Your task to perform on an android device: see creations saved in the google photos Image 0: 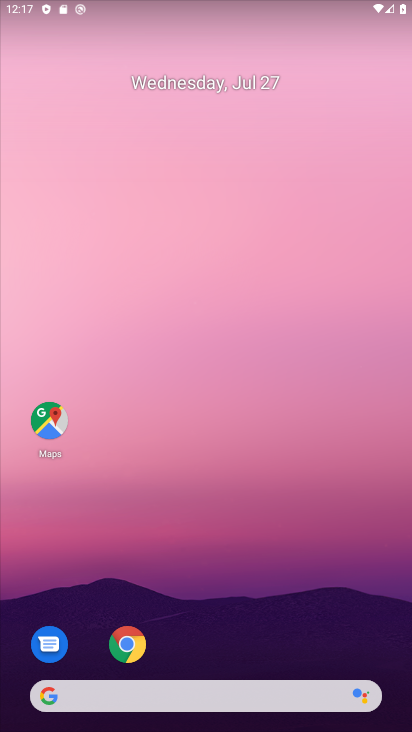
Step 0: drag from (195, 650) to (236, 172)
Your task to perform on an android device: see creations saved in the google photos Image 1: 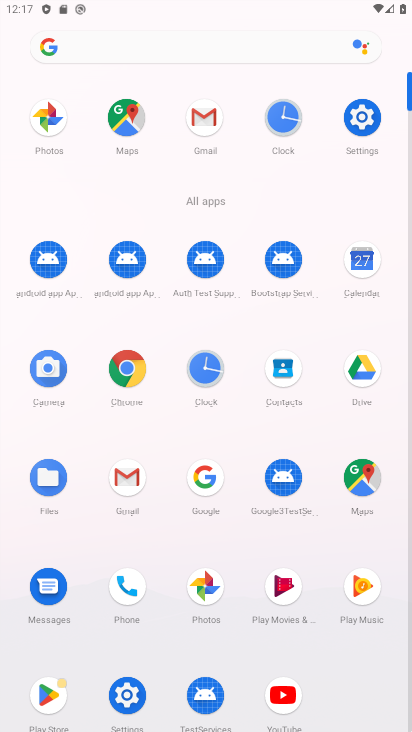
Step 1: click (200, 597)
Your task to perform on an android device: see creations saved in the google photos Image 2: 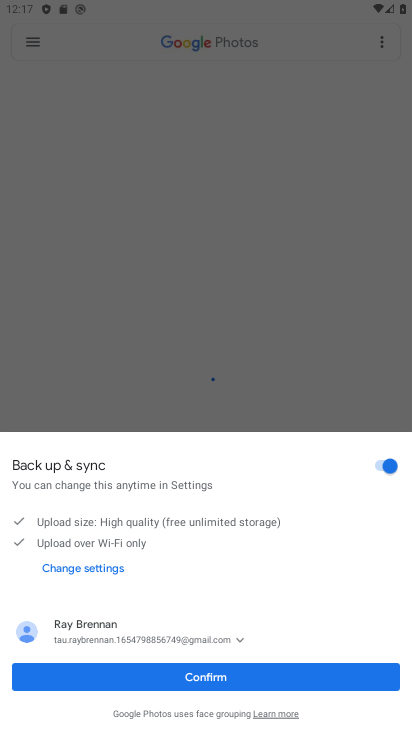
Step 2: click (203, 674)
Your task to perform on an android device: see creations saved in the google photos Image 3: 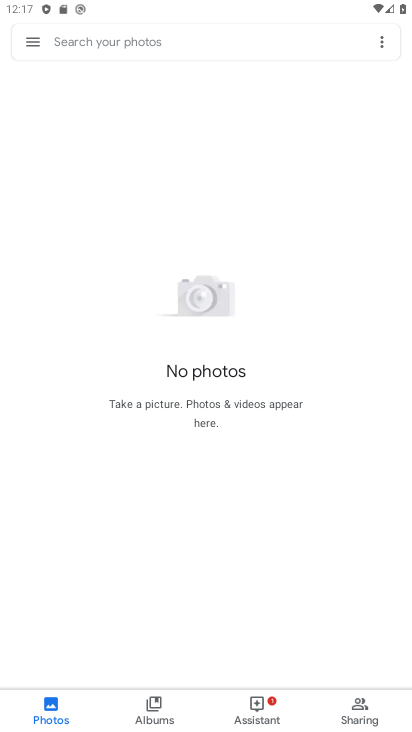
Step 3: click (166, 45)
Your task to perform on an android device: see creations saved in the google photos Image 4: 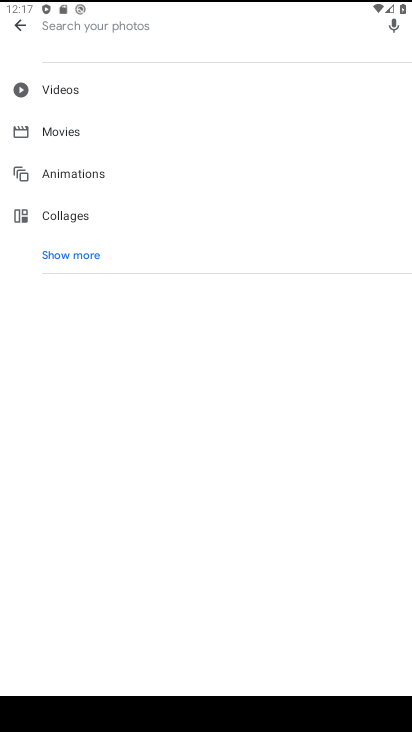
Step 4: type "creations"
Your task to perform on an android device: see creations saved in the google photos Image 5: 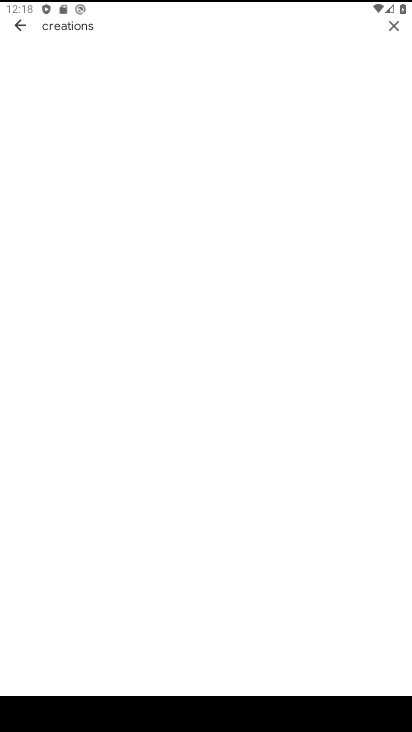
Step 5: task complete